Your task to perform on an android device: check data usage Image 0: 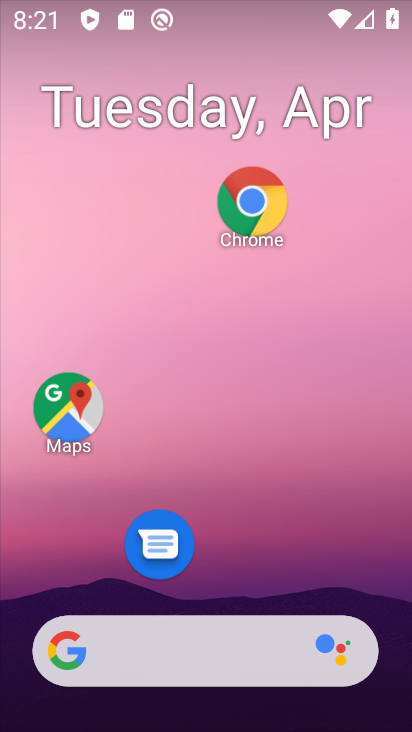
Step 0: click (305, 108)
Your task to perform on an android device: check data usage Image 1: 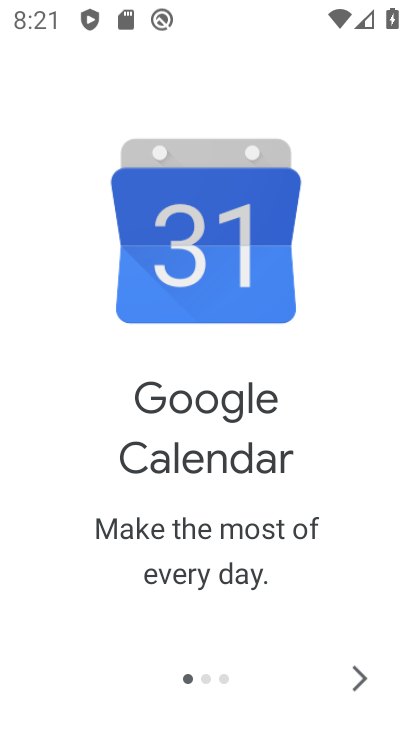
Step 1: press back button
Your task to perform on an android device: check data usage Image 2: 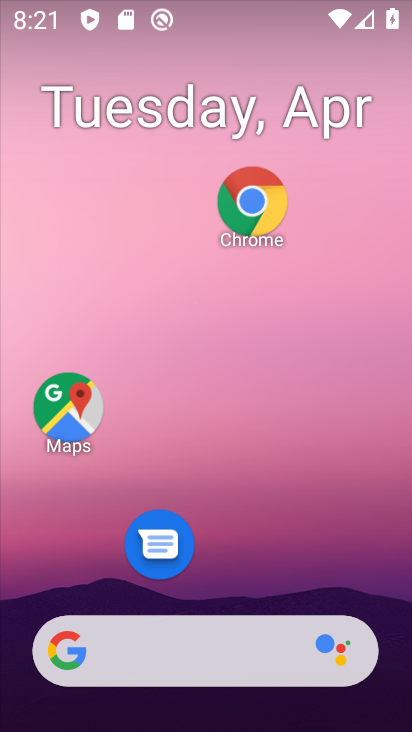
Step 2: drag from (318, 483) to (335, 136)
Your task to perform on an android device: check data usage Image 3: 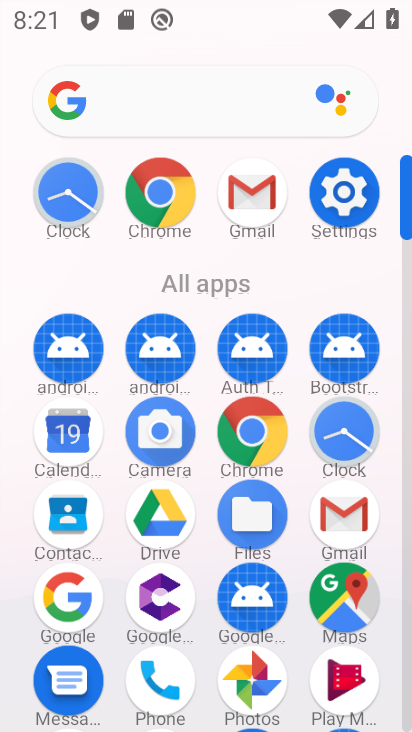
Step 3: click (331, 205)
Your task to perform on an android device: check data usage Image 4: 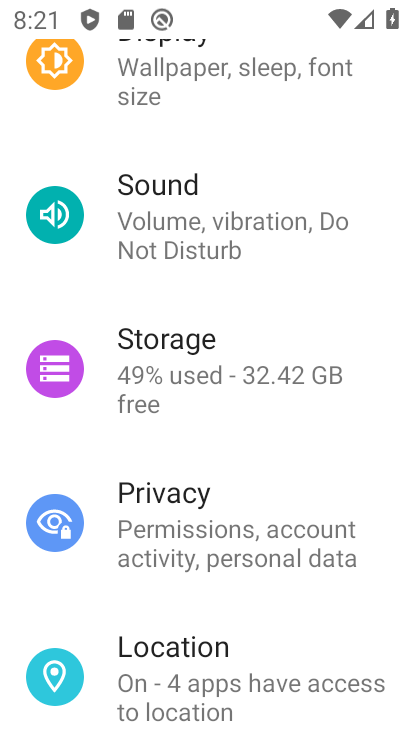
Step 4: drag from (218, 111) to (218, 699)
Your task to perform on an android device: check data usage Image 5: 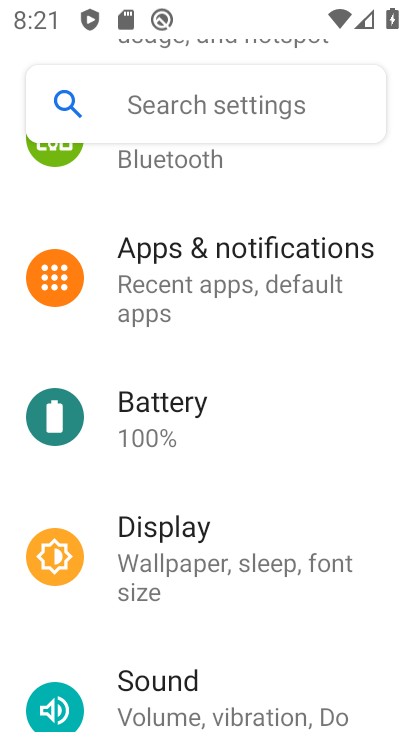
Step 5: drag from (193, 253) to (186, 689)
Your task to perform on an android device: check data usage Image 6: 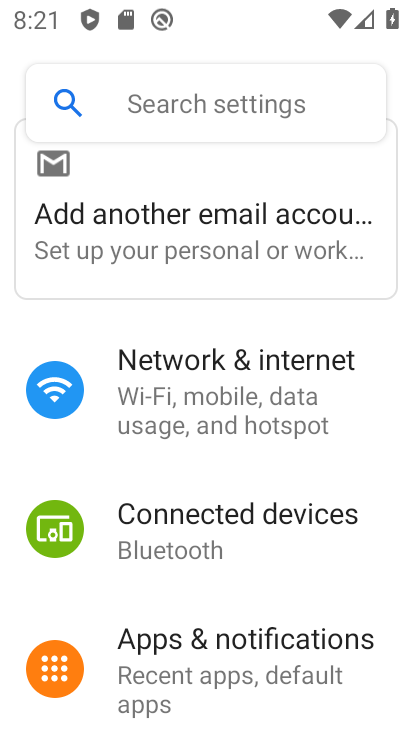
Step 6: click (188, 411)
Your task to perform on an android device: check data usage Image 7: 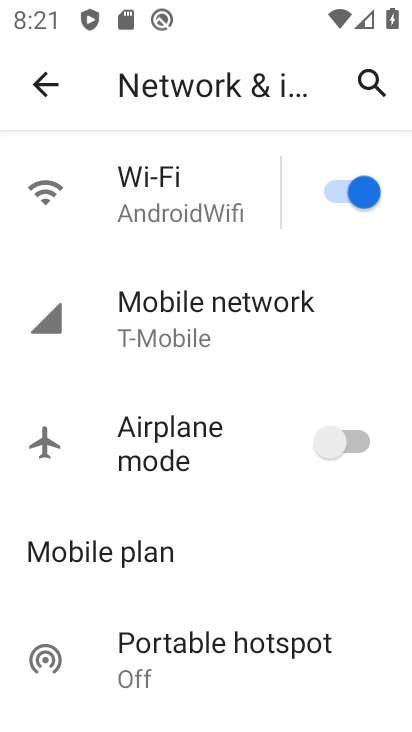
Step 7: click (198, 308)
Your task to perform on an android device: check data usage Image 8: 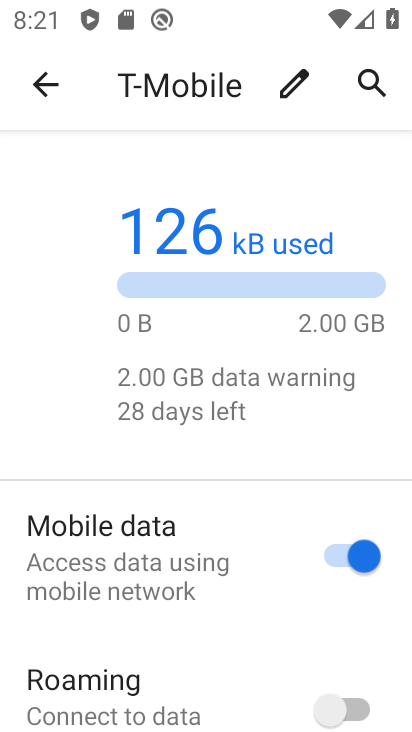
Step 8: drag from (174, 636) to (245, 217)
Your task to perform on an android device: check data usage Image 9: 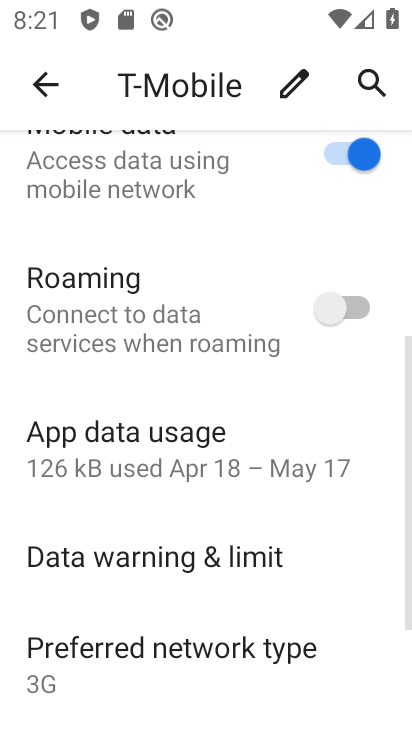
Step 9: click (85, 469)
Your task to perform on an android device: check data usage Image 10: 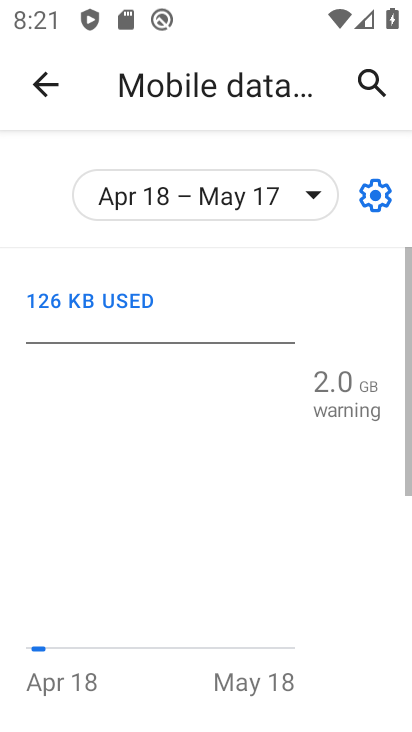
Step 10: task complete